Your task to perform on an android device: Show me productivity apps on the Play Store Image 0: 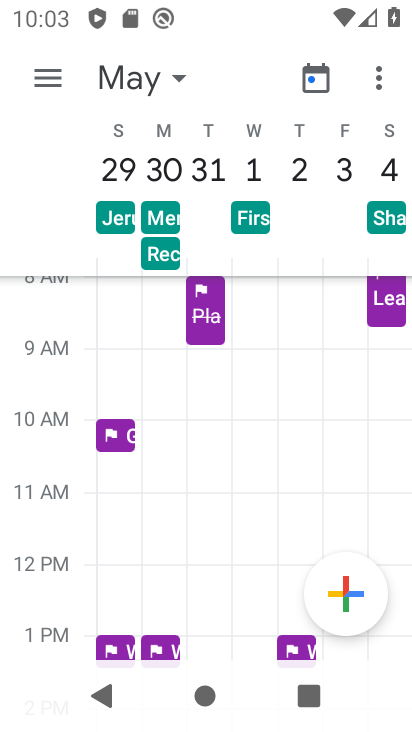
Step 0: press home button
Your task to perform on an android device: Show me productivity apps on the Play Store Image 1: 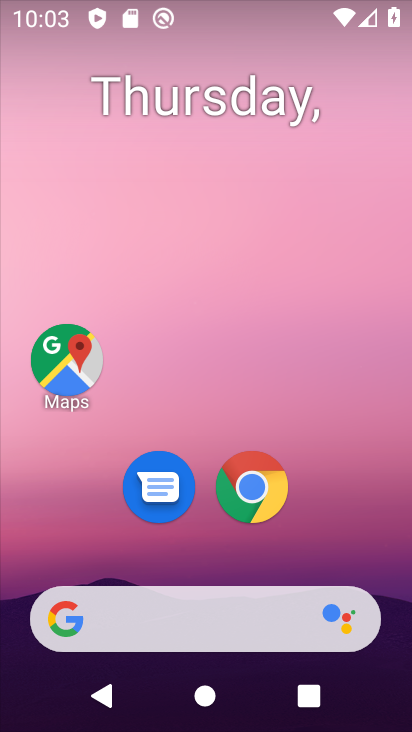
Step 1: drag from (320, 511) to (190, 197)
Your task to perform on an android device: Show me productivity apps on the Play Store Image 2: 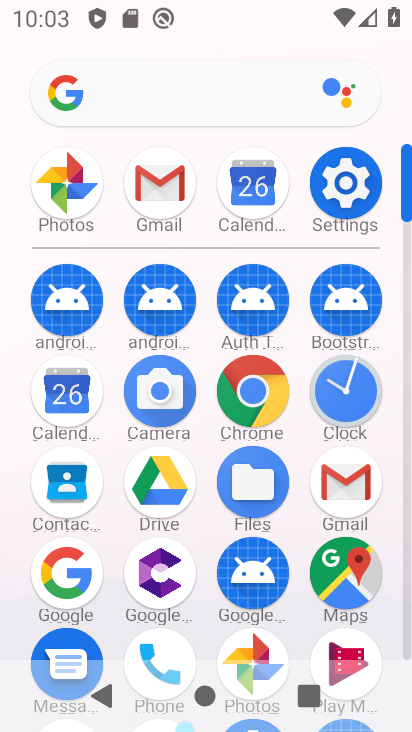
Step 2: drag from (408, 206) to (388, 259)
Your task to perform on an android device: Show me productivity apps on the Play Store Image 3: 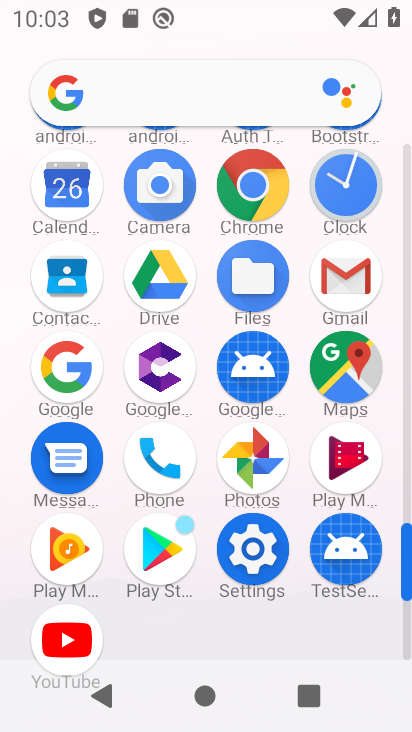
Step 3: click (159, 558)
Your task to perform on an android device: Show me productivity apps on the Play Store Image 4: 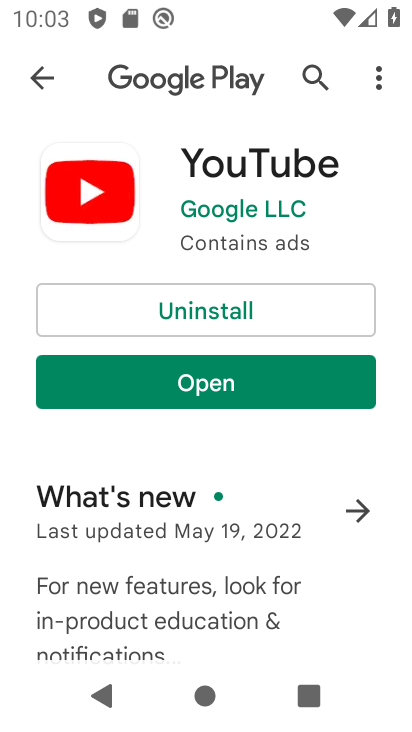
Step 4: press back button
Your task to perform on an android device: Show me productivity apps on the Play Store Image 5: 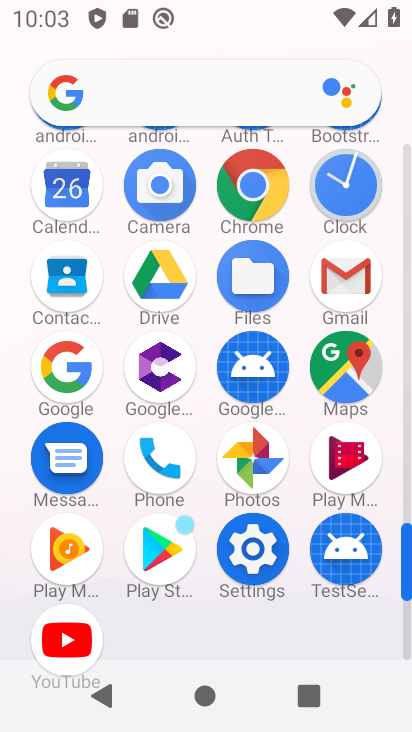
Step 5: click (156, 559)
Your task to perform on an android device: Show me productivity apps on the Play Store Image 6: 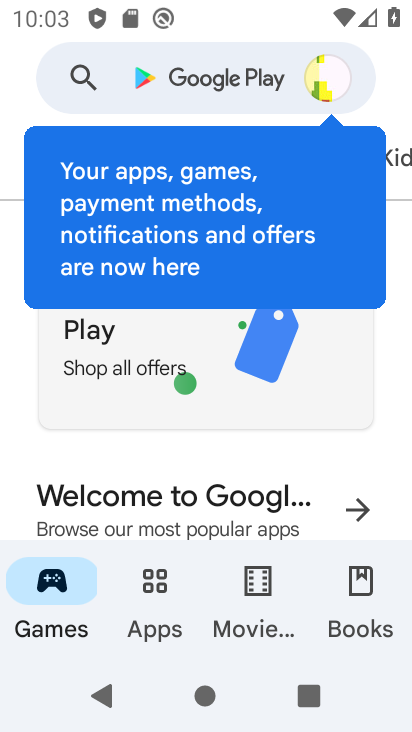
Step 6: click (159, 595)
Your task to perform on an android device: Show me productivity apps on the Play Store Image 7: 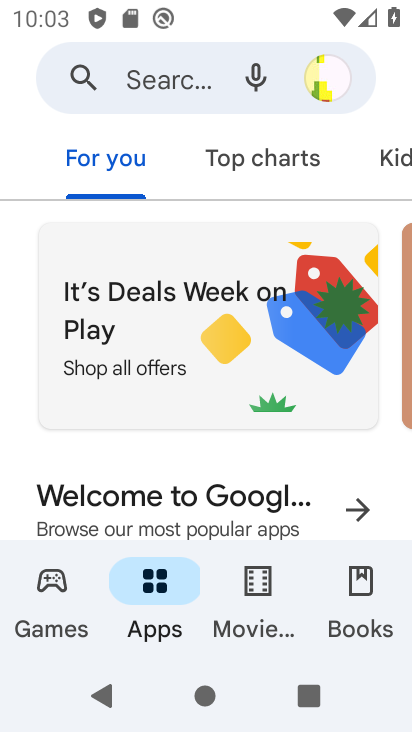
Step 7: drag from (342, 155) to (72, 178)
Your task to perform on an android device: Show me productivity apps on the Play Store Image 8: 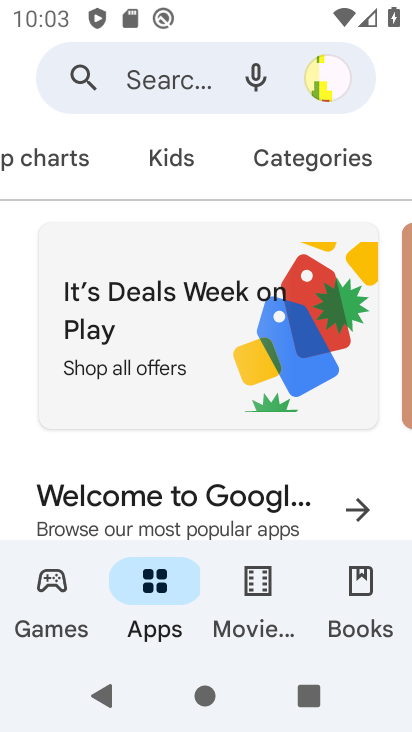
Step 8: click (296, 159)
Your task to perform on an android device: Show me productivity apps on the Play Store Image 9: 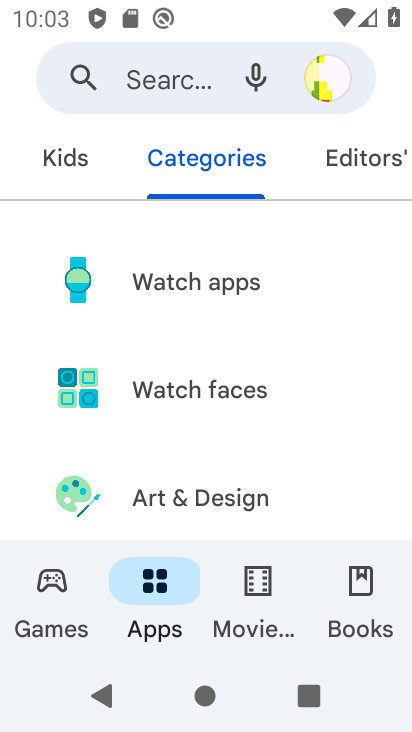
Step 9: drag from (227, 495) to (181, 176)
Your task to perform on an android device: Show me productivity apps on the Play Store Image 10: 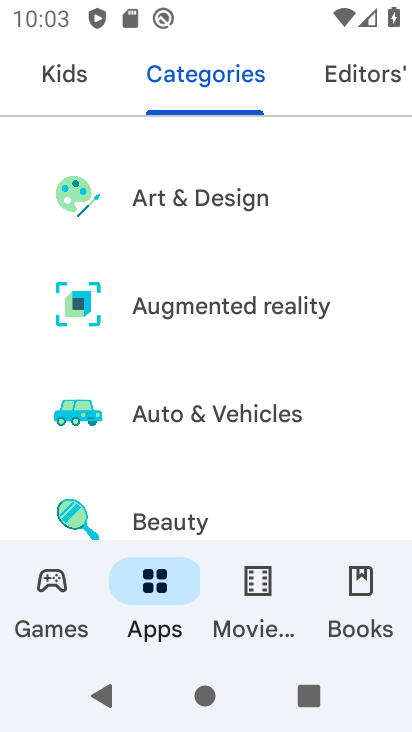
Step 10: drag from (214, 450) to (141, 168)
Your task to perform on an android device: Show me productivity apps on the Play Store Image 11: 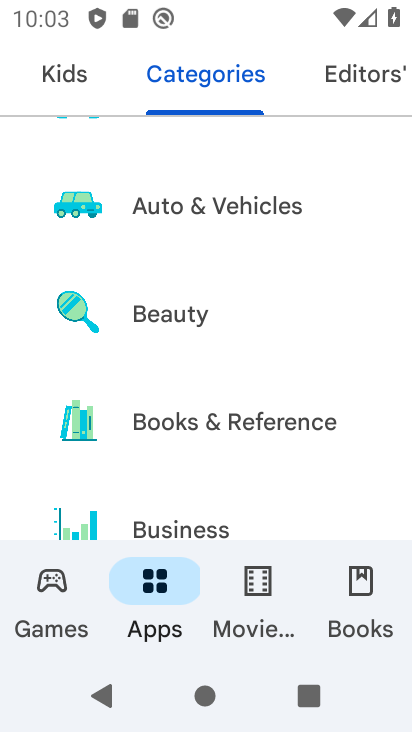
Step 11: drag from (219, 469) to (163, 139)
Your task to perform on an android device: Show me productivity apps on the Play Store Image 12: 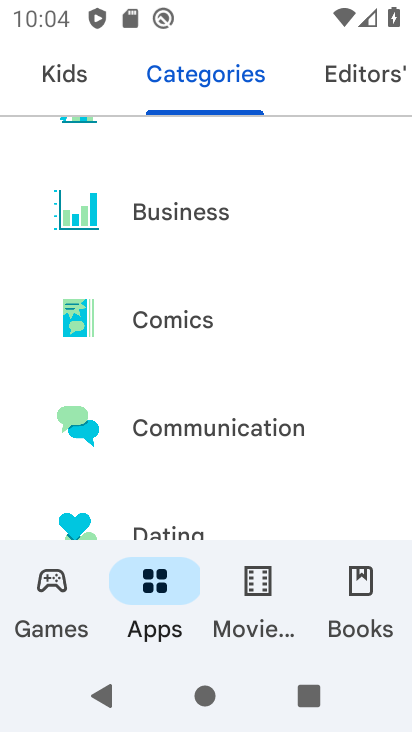
Step 12: drag from (255, 498) to (252, 189)
Your task to perform on an android device: Show me productivity apps on the Play Store Image 13: 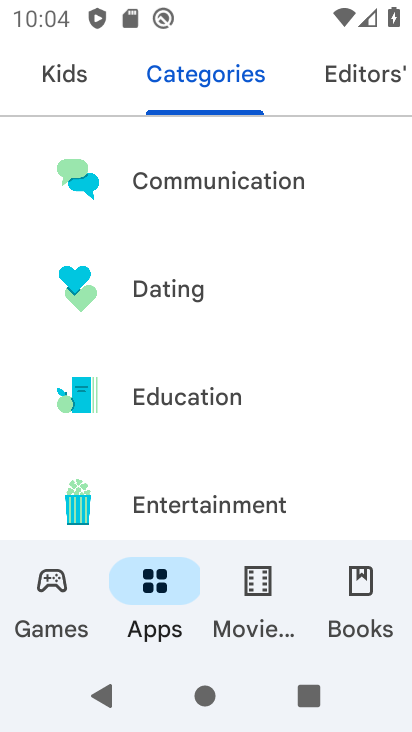
Step 13: drag from (276, 485) to (218, 106)
Your task to perform on an android device: Show me productivity apps on the Play Store Image 14: 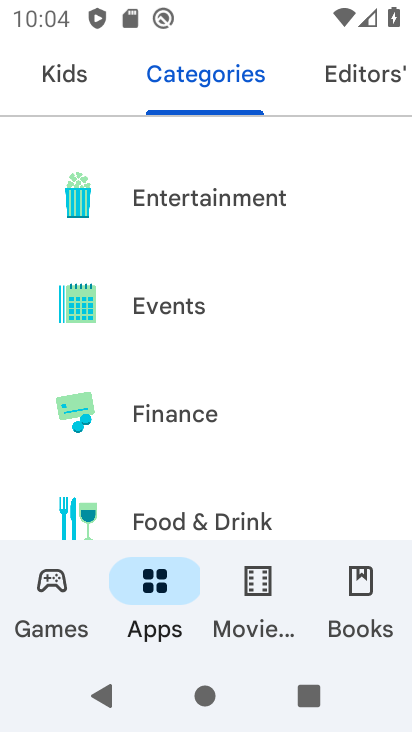
Step 14: drag from (218, 481) to (141, 117)
Your task to perform on an android device: Show me productivity apps on the Play Store Image 15: 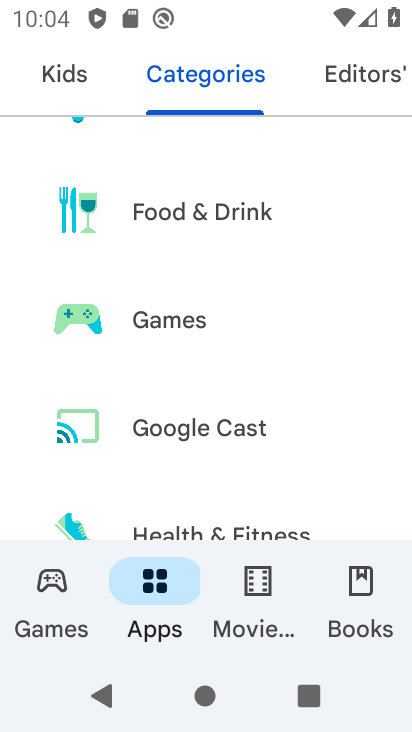
Step 15: drag from (190, 347) to (159, 141)
Your task to perform on an android device: Show me productivity apps on the Play Store Image 16: 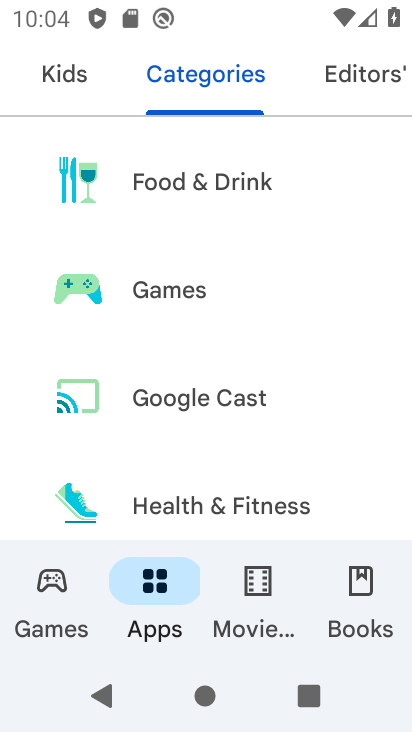
Step 16: drag from (241, 420) to (174, 72)
Your task to perform on an android device: Show me productivity apps on the Play Store Image 17: 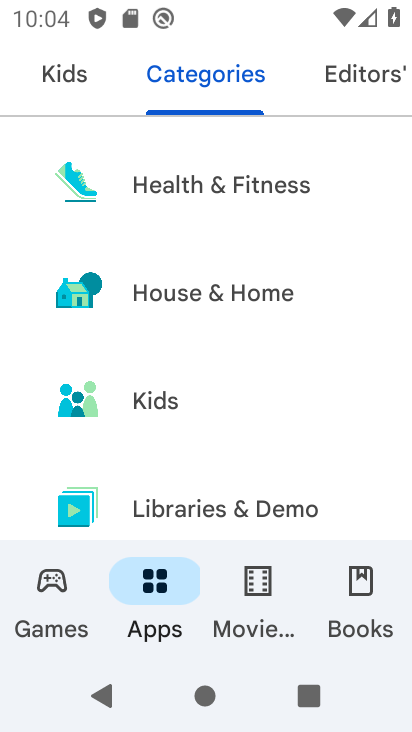
Step 17: drag from (277, 491) to (220, 102)
Your task to perform on an android device: Show me productivity apps on the Play Store Image 18: 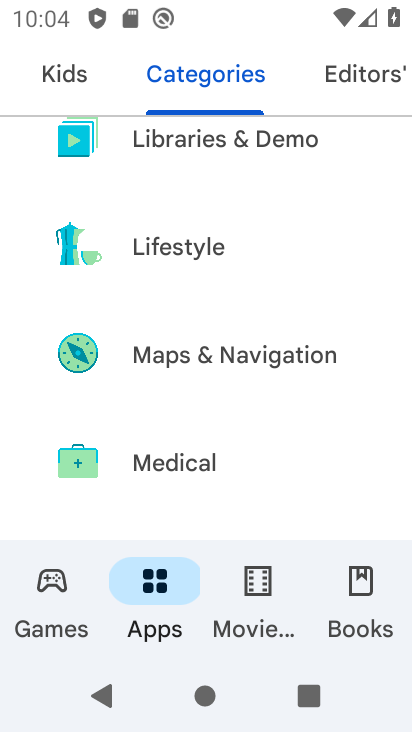
Step 18: drag from (252, 503) to (247, 133)
Your task to perform on an android device: Show me productivity apps on the Play Store Image 19: 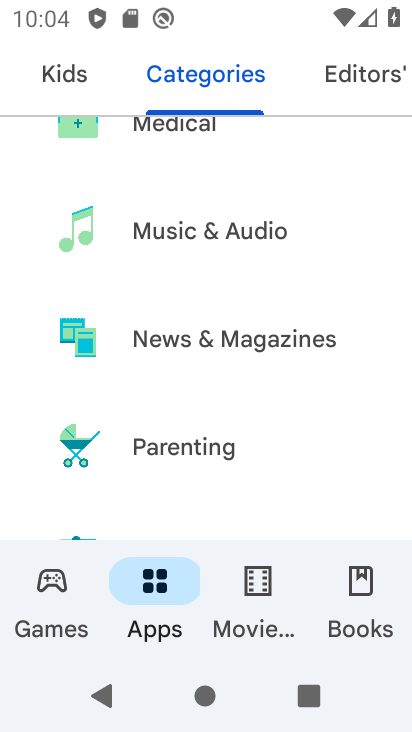
Step 19: drag from (241, 446) to (269, 141)
Your task to perform on an android device: Show me productivity apps on the Play Store Image 20: 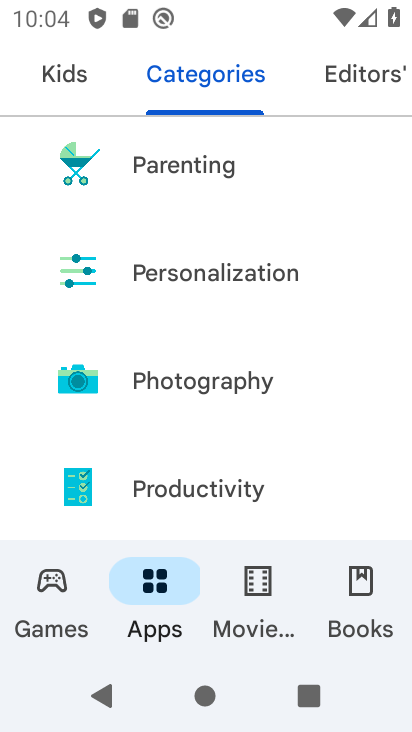
Step 20: click (191, 491)
Your task to perform on an android device: Show me productivity apps on the Play Store Image 21: 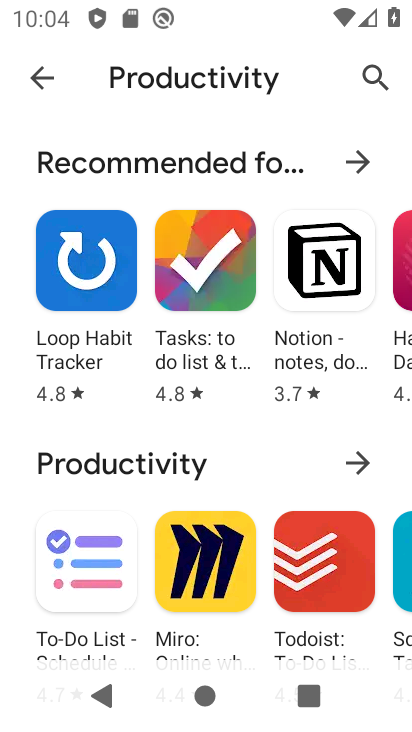
Step 21: task complete